Your task to perform on an android device: turn off picture-in-picture Image 0: 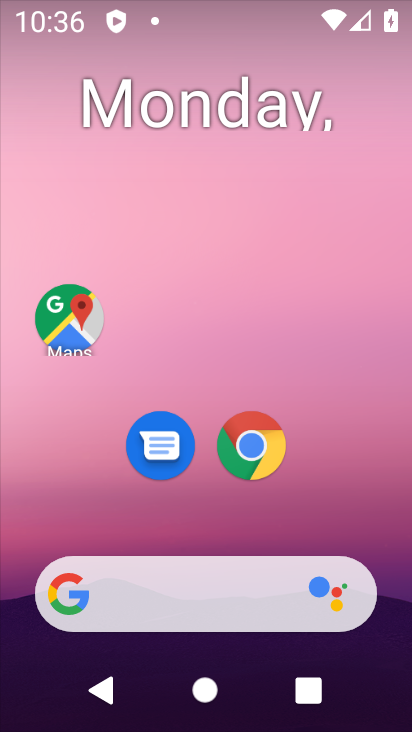
Step 0: drag from (361, 490) to (142, 152)
Your task to perform on an android device: turn off picture-in-picture Image 1: 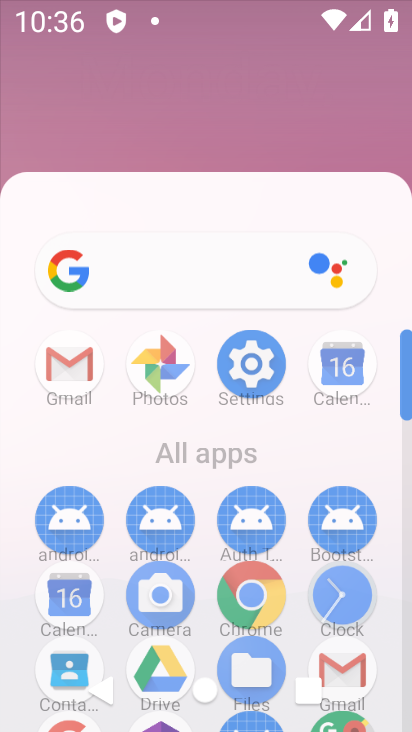
Step 1: click (142, 152)
Your task to perform on an android device: turn off picture-in-picture Image 2: 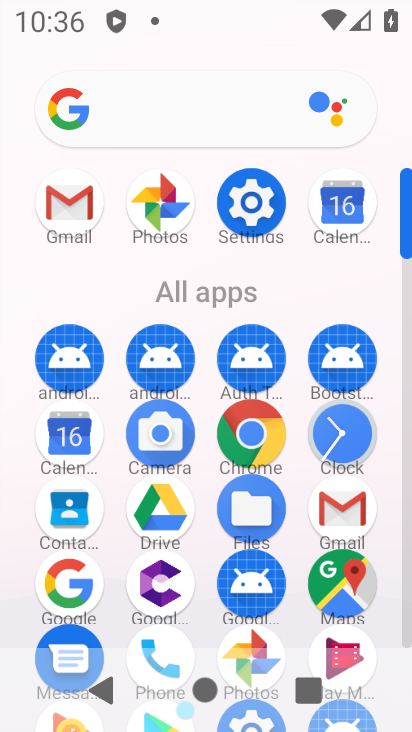
Step 2: click (245, 207)
Your task to perform on an android device: turn off picture-in-picture Image 3: 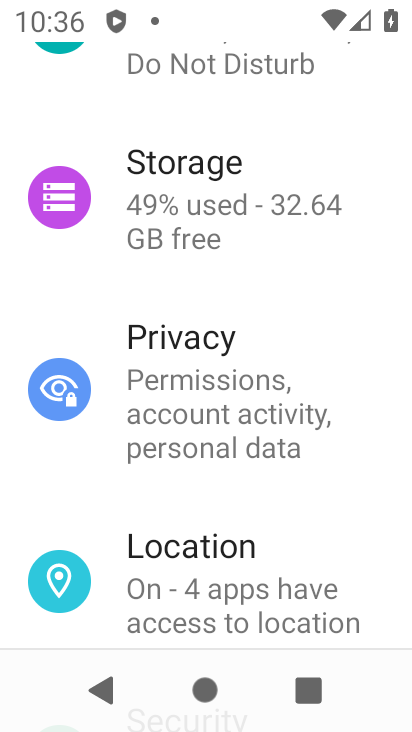
Step 3: drag from (266, 190) to (237, 561)
Your task to perform on an android device: turn off picture-in-picture Image 4: 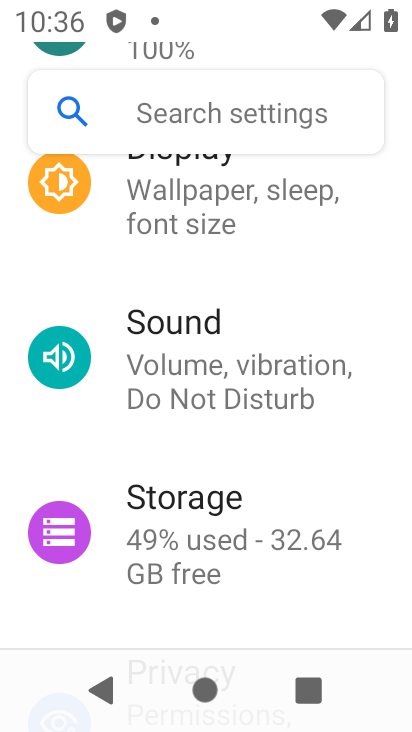
Step 4: drag from (276, 265) to (227, 586)
Your task to perform on an android device: turn off picture-in-picture Image 5: 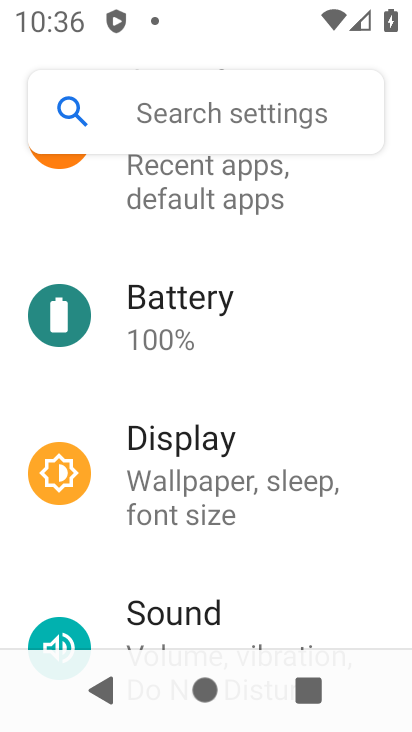
Step 5: drag from (264, 195) to (232, 453)
Your task to perform on an android device: turn off picture-in-picture Image 6: 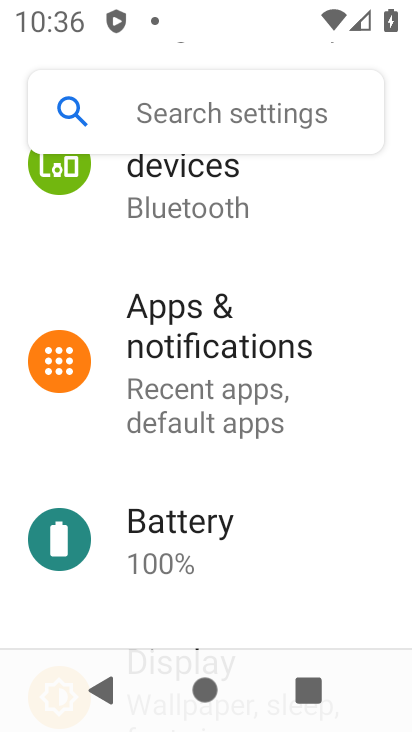
Step 6: click (231, 381)
Your task to perform on an android device: turn off picture-in-picture Image 7: 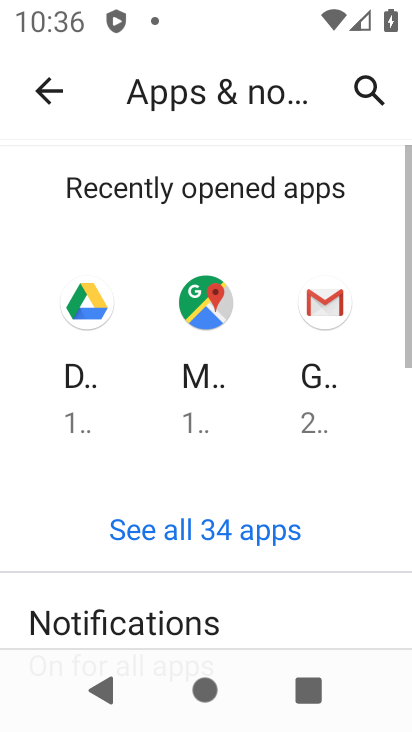
Step 7: drag from (245, 591) to (238, 185)
Your task to perform on an android device: turn off picture-in-picture Image 8: 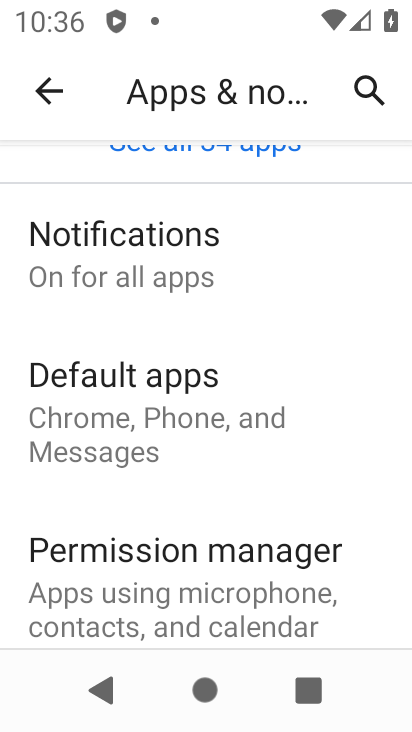
Step 8: drag from (184, 537) to (197, 257)
Your task to perform on an android device: turn off picture-in-picture Image 9: 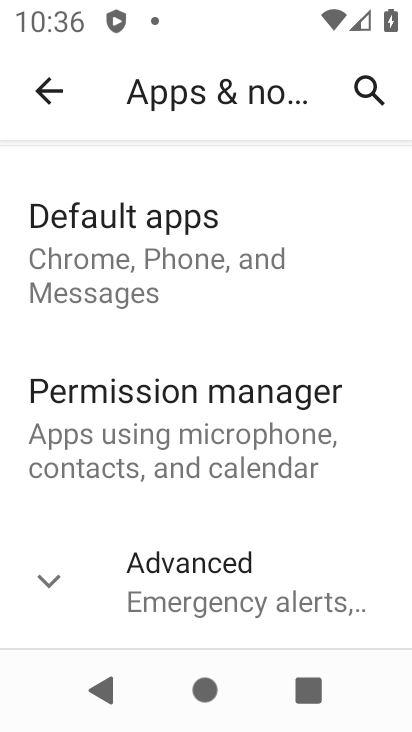
Step 9: click (219, 580)
Your task to perform on an android device: turn off picture-in-picture Image 10: 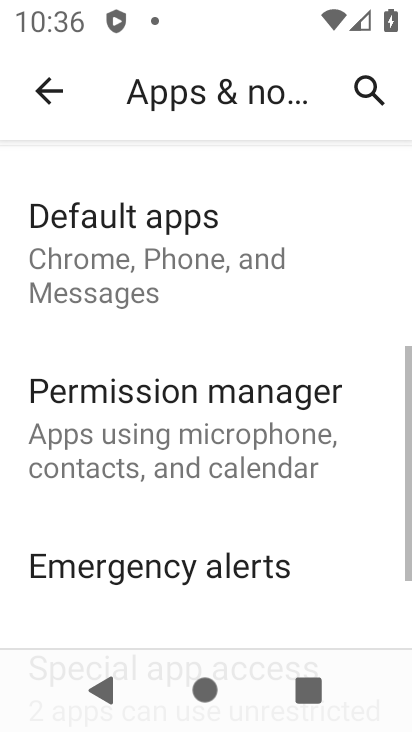
Step 10: drag from (219, 580) to (245, 296)
Your task to perform on an android device: turn off picture-in-picture Image 11: 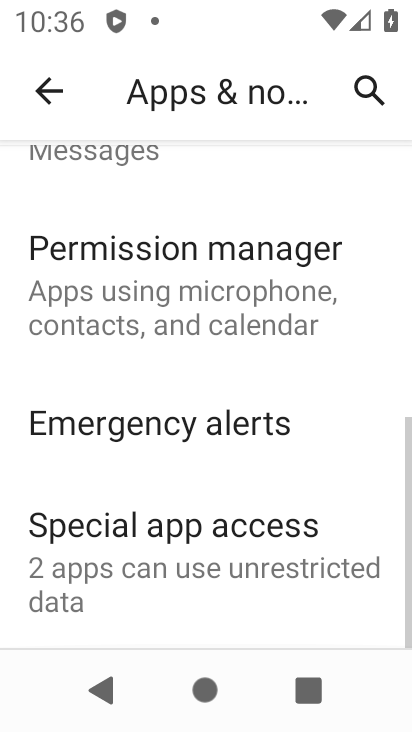
Step 11: click (179, 541)
Your task to perform on an android device: turn off picture-in-picture Image 12: 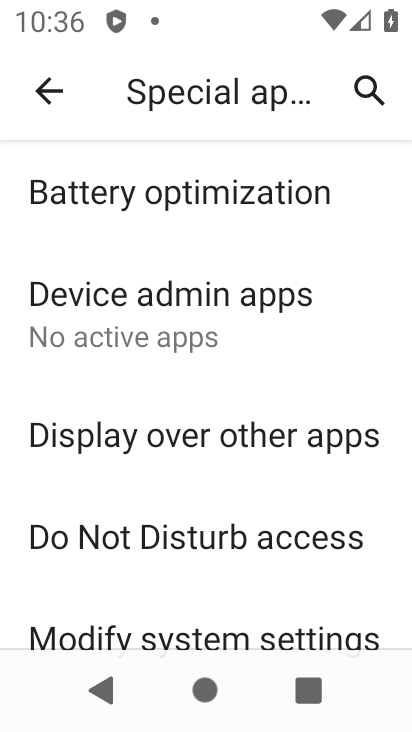
Step 12: drag from (170, 508) to (189, 237)
Your task to perform on an android device: turn off picture-in-picture Image 13: 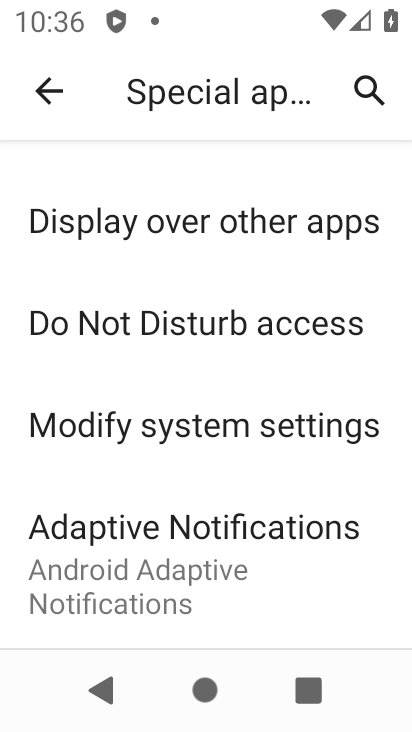
Step 13: drag from (171, 591) to (188, 232)
Your task to perform on an android device: turn off picture-in-picture Image 14: 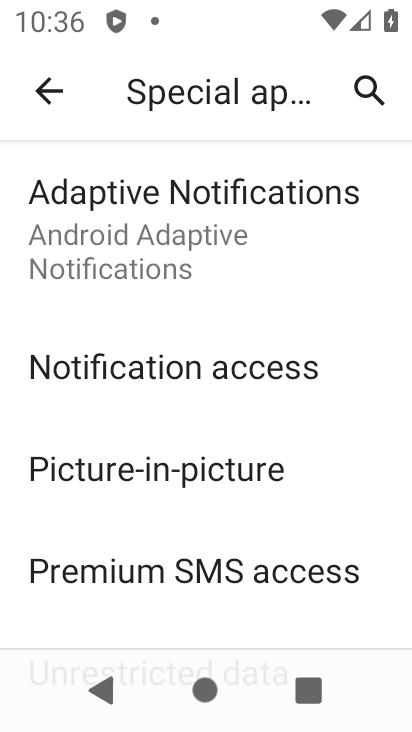
Step 14: click (173, 464)
Your task to perform on an android device: turn off picture-in-picture Image 15: 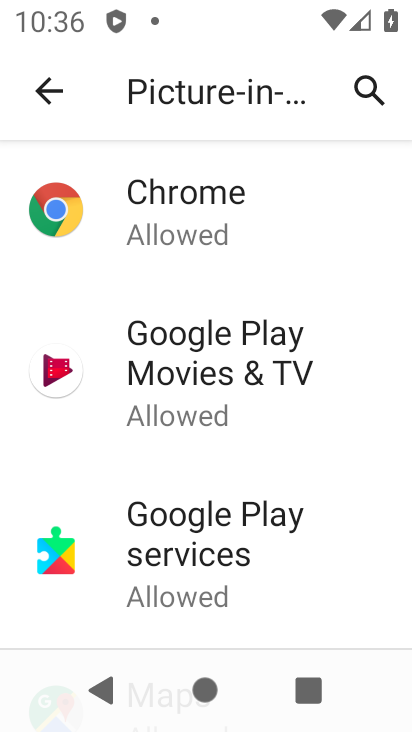
Step 15: drag from (187, 594) to (187, 227)
Your task to perform on an android device: turn off picture-in-picture Image 16: 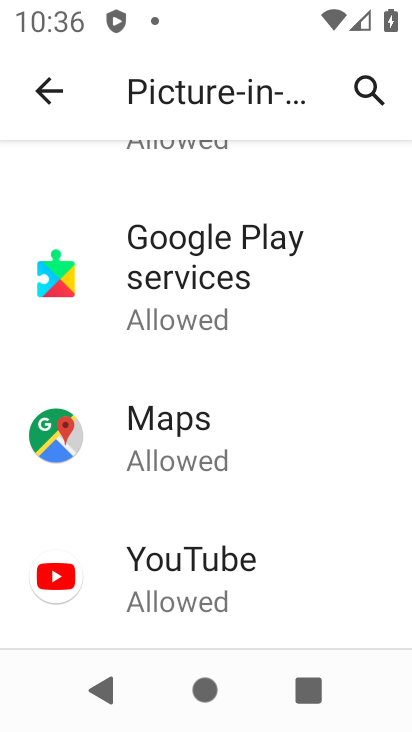
Step 16: click (190, 556)
Your task to perform on an android device: turn off picture-in-picture Image 17: 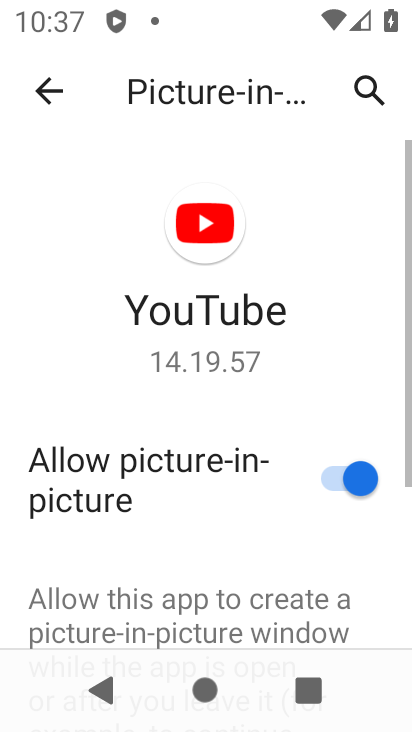
Step 17: click (375, 472)
Your task to perform on an android device: turn off picture-in-picture Image 18: 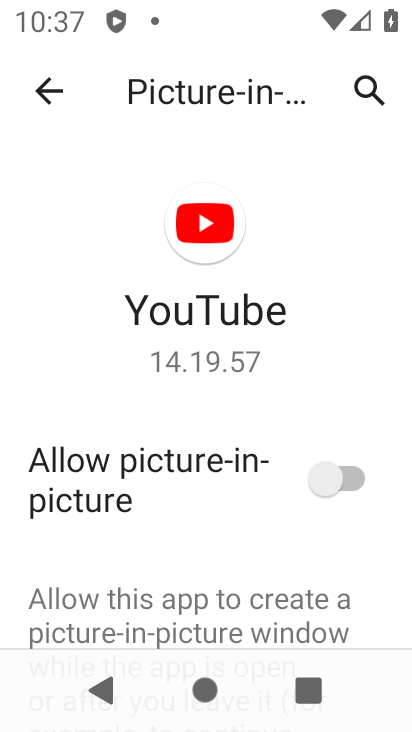
Step 18: task complete